Your task to perform on an android device: turn off sleep mode Image 0: 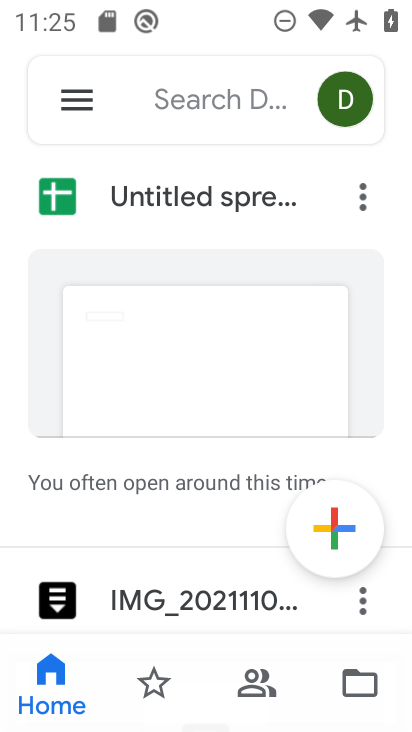
Step 0: press home button
Your task to perform on an android device: turn off sleep mode Image 1: 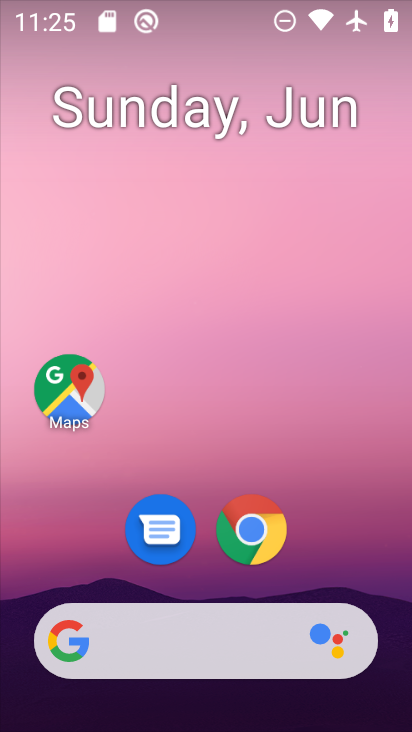
Step 1: drag from (404, 630) to (280, 22)
Your task to perform on an android device: turn off sleep mode Image 2: 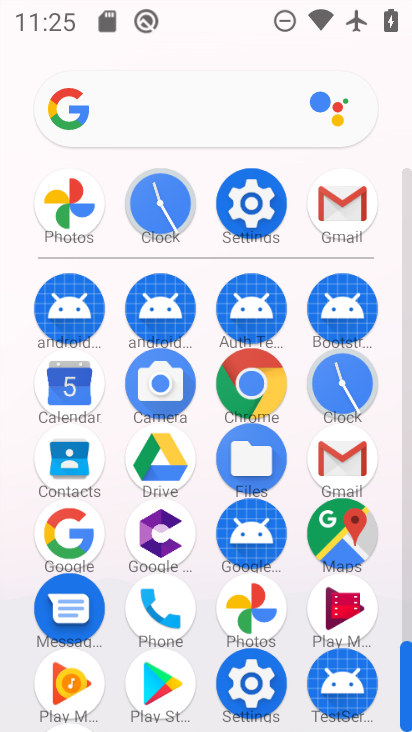
Step 2: click (252, 678)
Your task to perform on an android device: turn off sleep mode Image 3: 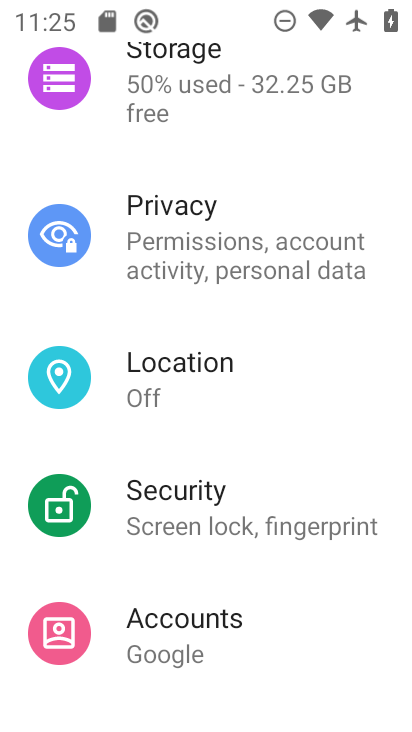
Step 3: drag from (362, 277) to (331, 615)
Your task to perform on an android device: turn off sleep mode Image 4: 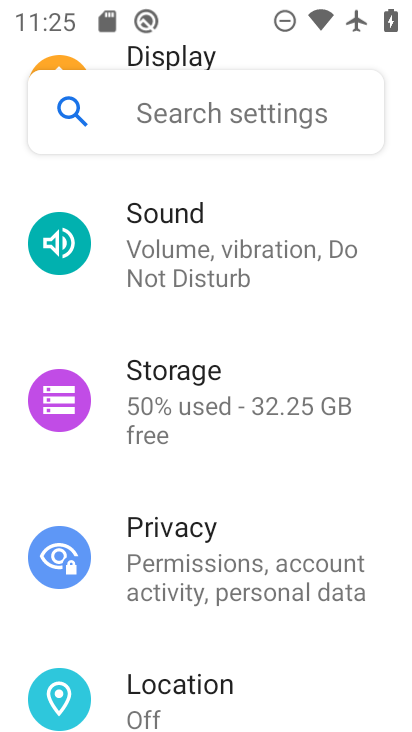
Step 4: drag from (335, 313) to (331, 573)
Your task to perform on an android device: turn off sleep mode Image 5: 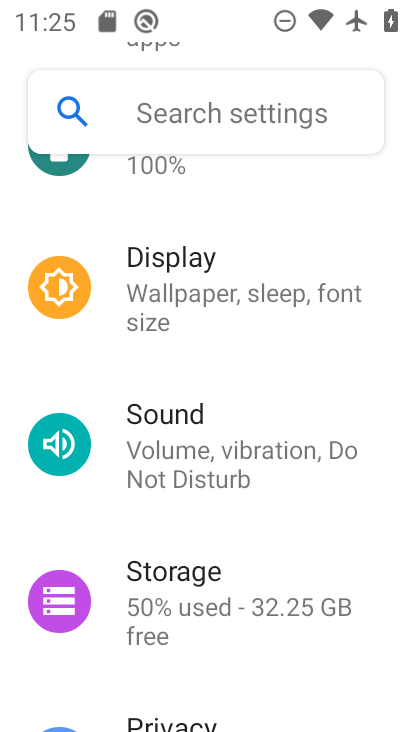
Step 5: click (187, 287)
Your task to perform on an android device: turn off sleep mode Image 6: 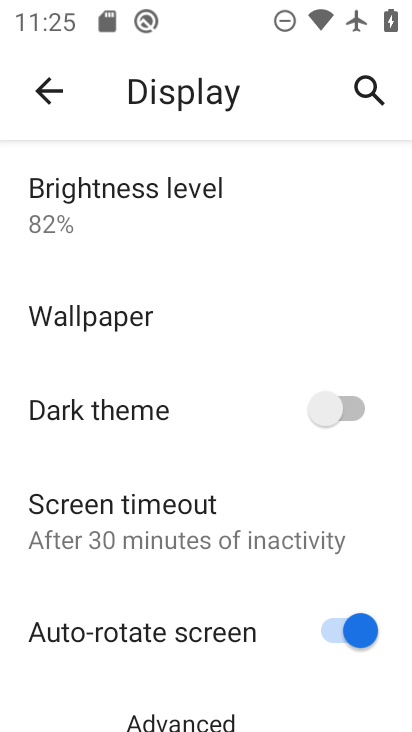
Step 6: drag from (259, 623) to (258, 178)
Your task to perform on an android device: turn off sleep mode Image 7: 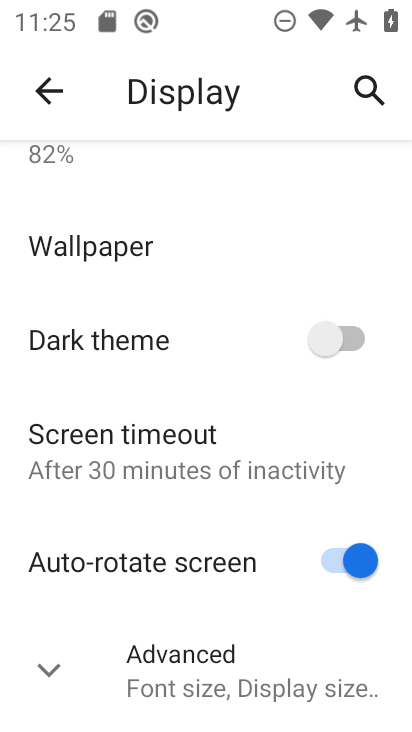
Step 7: click (56, 676)
Your task to perform on an android device: turn off sleep mode Image 8: 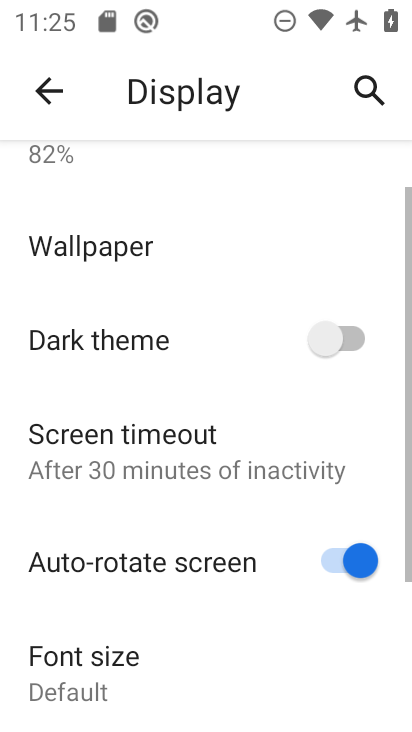
Step 8: task complete